Your task to perform on an android device: toggle notifications settings in the gmail app Image 0: 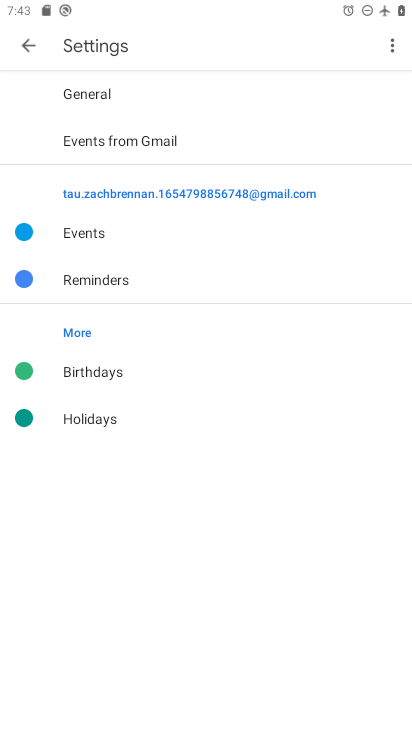
Step 0: press home button
Your task to perform on an android device: toggle notifications settings in the gmail app Image 1: 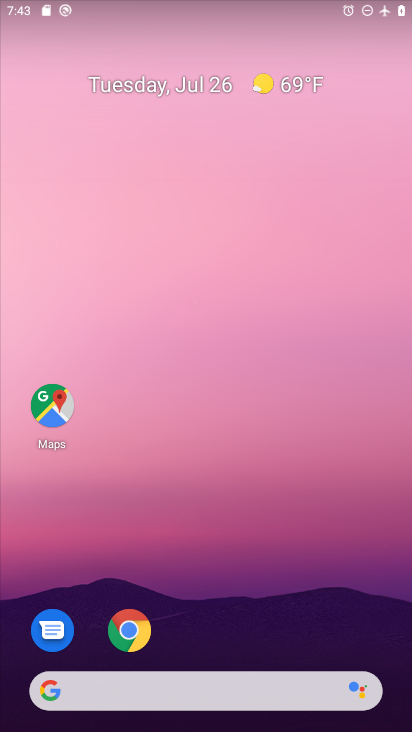
Step 1: drag from (223, 586) to (248, 111)
Your task to perform on an android device: toggle notifications settings in the gmail app Image 2: 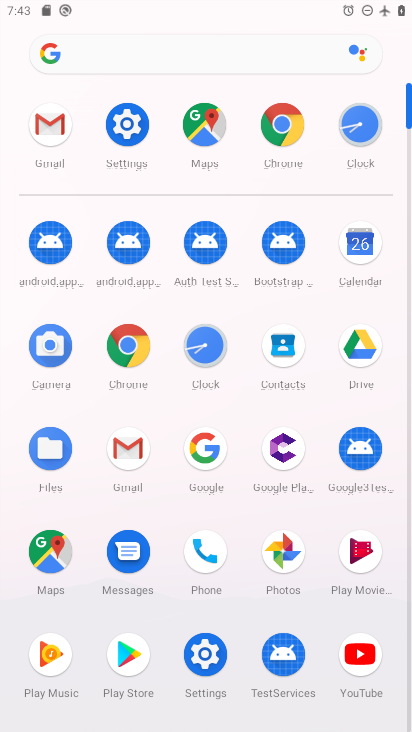
Step 2: click (133, 458)
Your task to perform on an android device: toggle notifications settings in the gmail app Image 3: 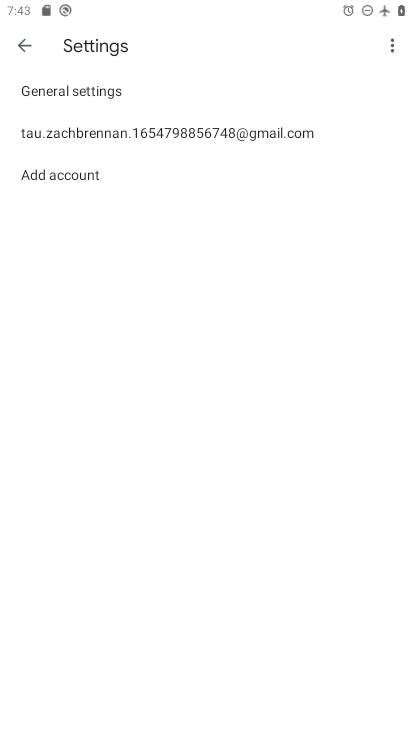
Step 3: click (204, 127)
Your task to perform on an android device: toggle notifications settings in the gmail app Image 4: 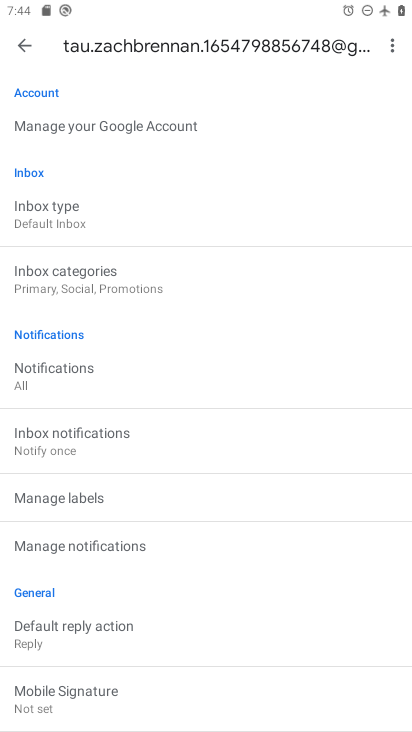
Step 4: click (112, 547)
Your task to perform on an android device: toggle notifications settings in the gmail app Image 5: 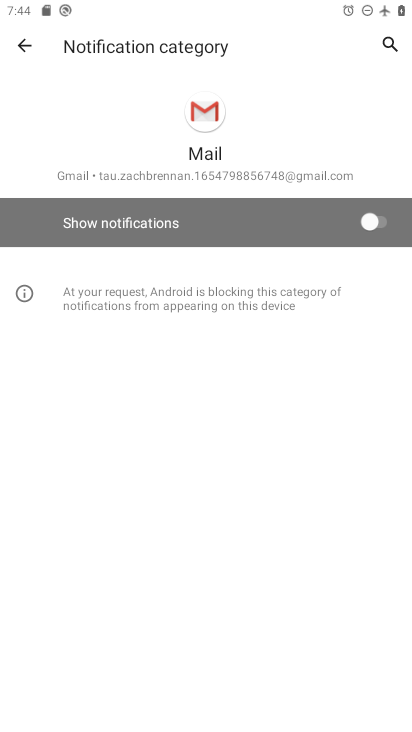
Step 5: click (363, 220)
Your task to perform on an android device: toggle notifications settings in the gmail app Image 6: 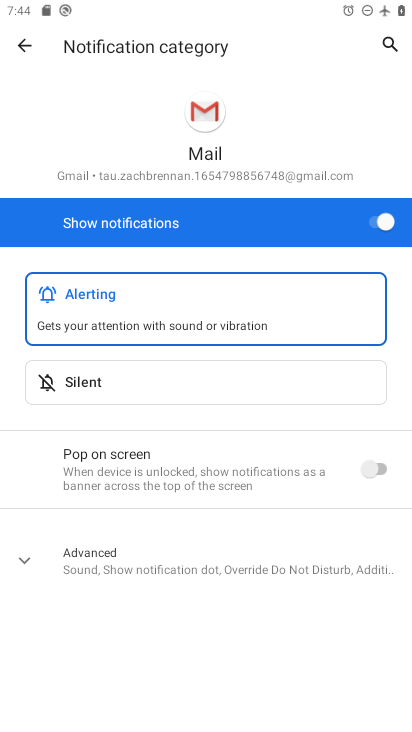
Step 6: task complete